Your task to perform on an android device: turn on wifi Image 0: 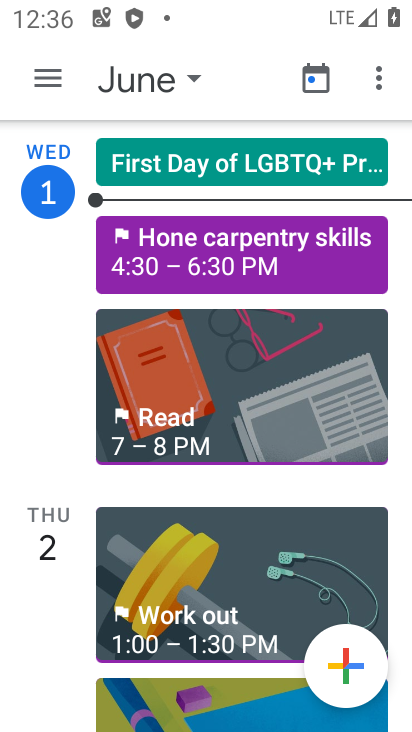
Step 0: press home button
Your task to perform on an android device: turn on wifi Image 1: 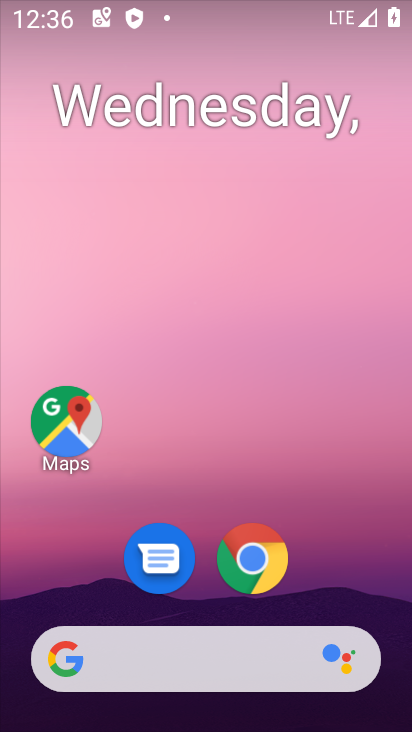
Step 1: drag from (172, 523) to (60, 29)
Your task to perform on an android device: turn on wifi Image 2: 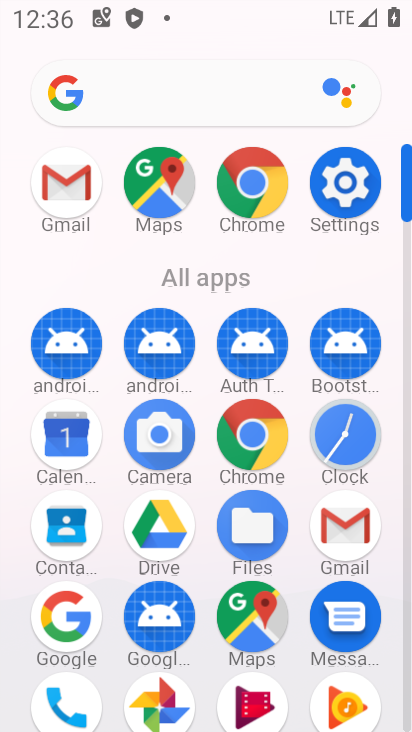
Step 2: click (343, 185)
Your task to perform on an android device: turn on wifi Image 3: 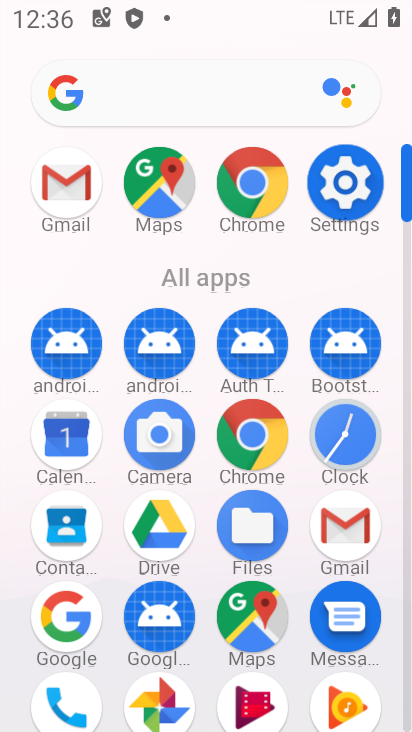
Step 3: click (343, 185)
Your task to perform on an android device: turn on wifi Image 4: 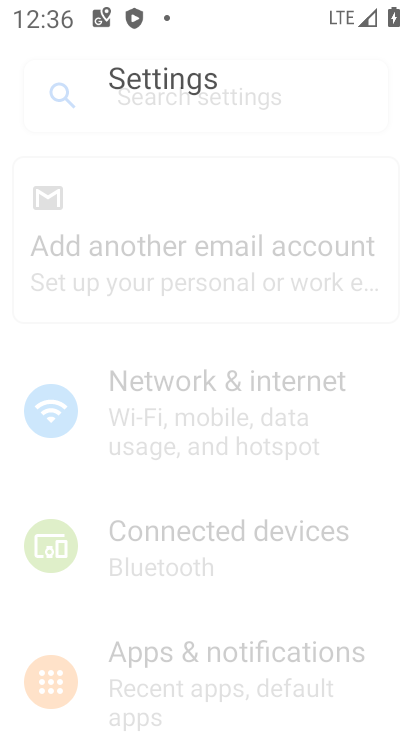
Step 4: click (343, 185)
Your task to perform on an android device: turn on wifi Image 5: 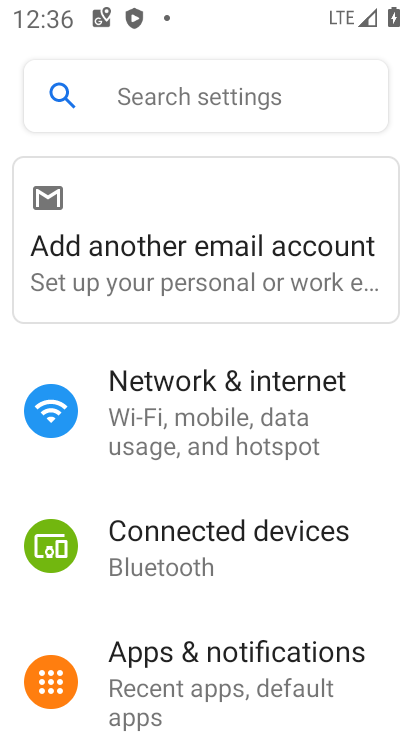
Step 5: click (176, 420)
Your task to perform on an android device: turn on wifi Image 6: 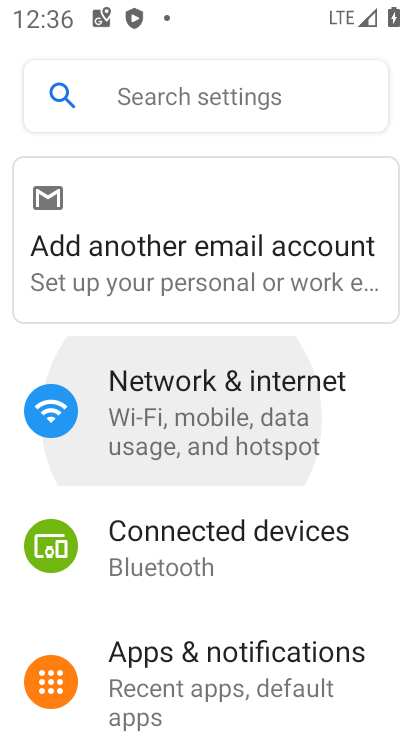
Step 6: click (176, 420)
Your task to perform on an android device: turn on wifi Image 7: 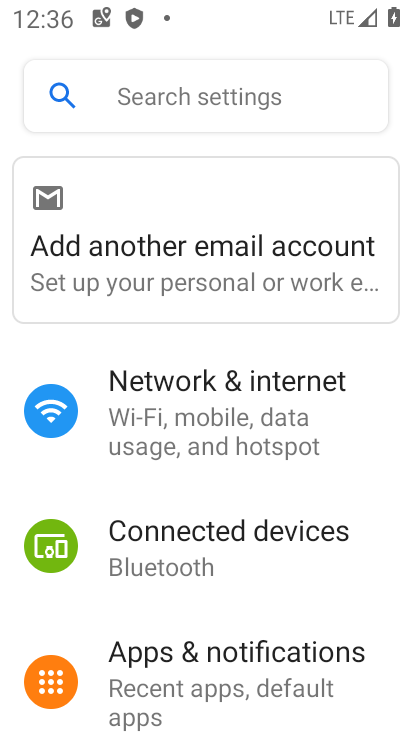
Step 7: click (176, 427)
Your task to perform on an android device: turn on wifi Image 8: 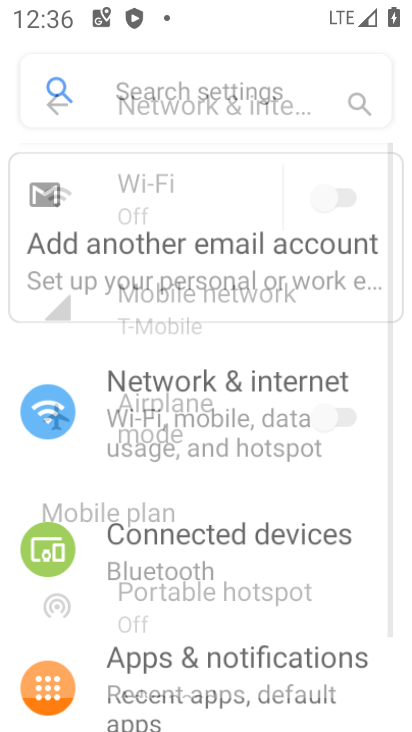
Step 8: click (182, 433)
Your task to perform on an android device: turn on wifi Image 9: 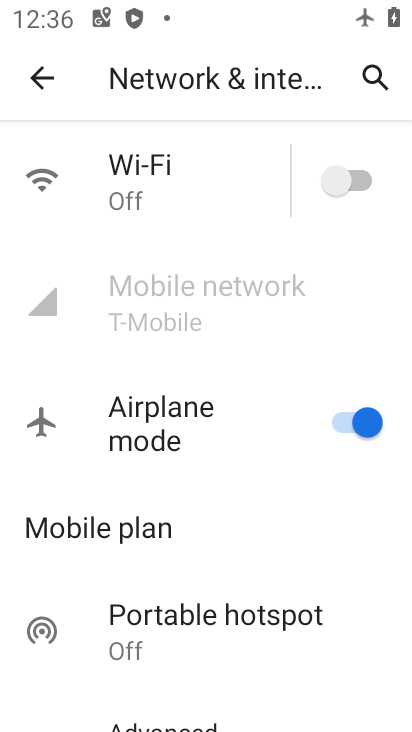
Step 9: click (344, 183)
Your task to perform on an android device: turn on wifi Image 10: 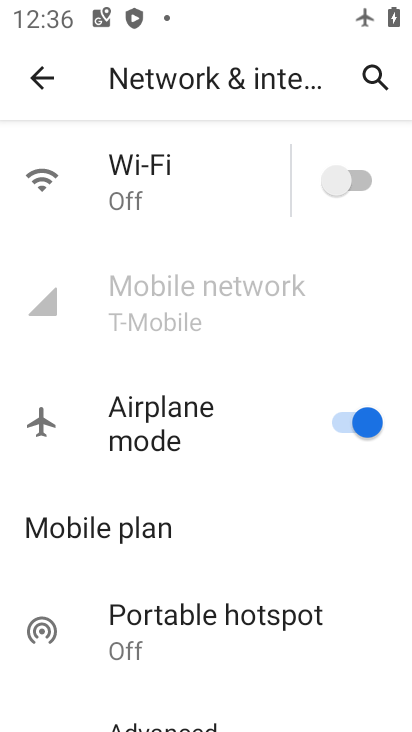
Step 10: click (345, 181)
Your task to perform on an android device: turn on wifi Image 11: 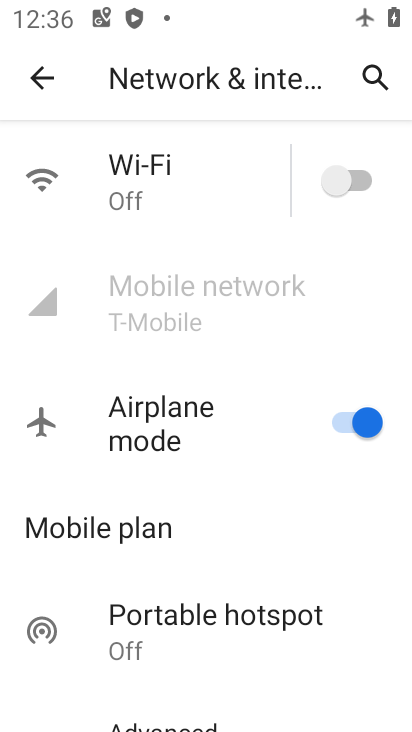
Step 11: click (346, 166)
Your task to perform on an android device: turn on wifi Image 12: 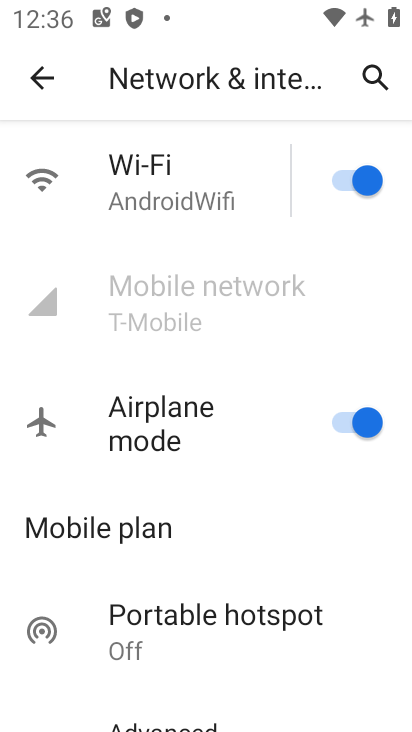
Step 12: task complete